Your task to perform on an android device: open device folders in google photos Image 0: 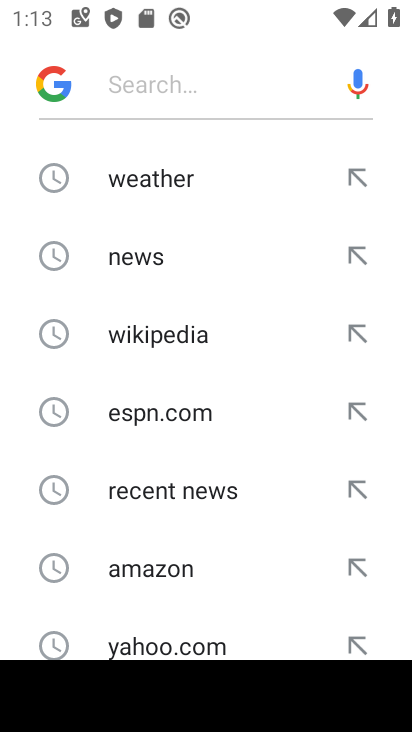
Step 0: press home button
Your task to perform on an android device: open device folders in google photos Image 1: 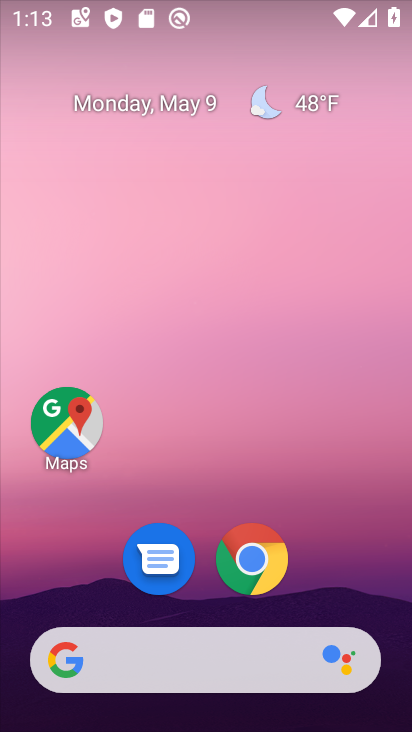
Step 1: drag from (340, 589) to (314, 222)
Your task to perform on an android device: open device folders in google photos Image 2: 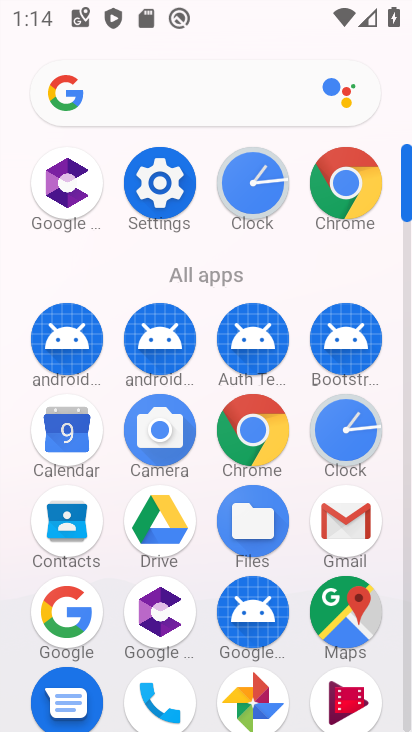
Step 2: drag from (201, 622) to (273, 296)
Your task to perform on an android device: open device folders in google photos Image 3: 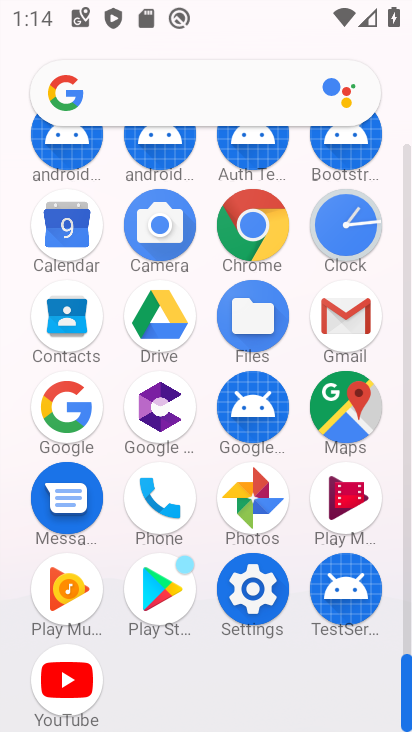
Step 3: click (251, 477)
Your task to perform on an android device: open device folders in google photos Image 4: 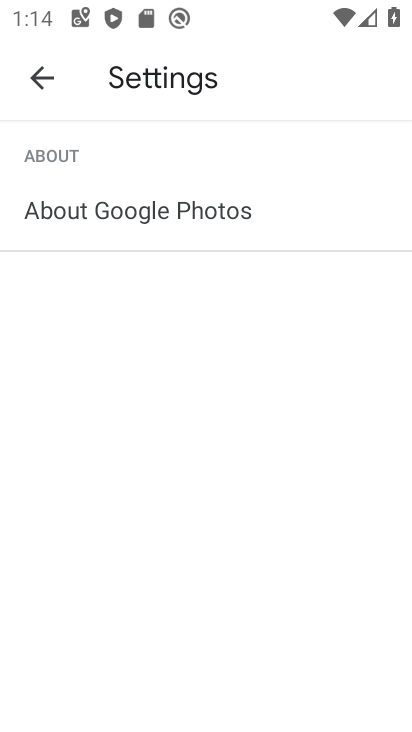
Step 4: click (48, 69)
Your task to perform on an android device: open device folders in google photos Image 5: 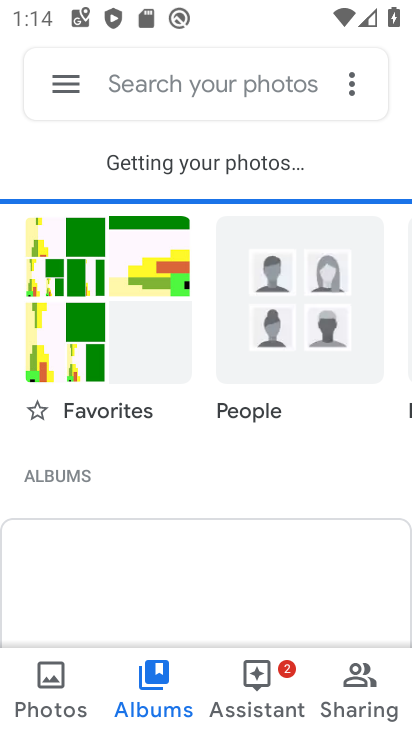
Step 5: click (50, 262)
Your task to perform on an android device: open device folders in google photos Image 6: 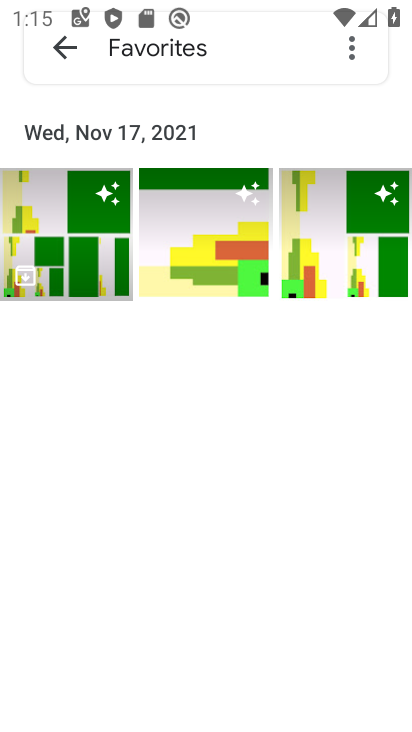
Step 6: task complete